Your task to perform on an android device: toggle notification dots Image 0: 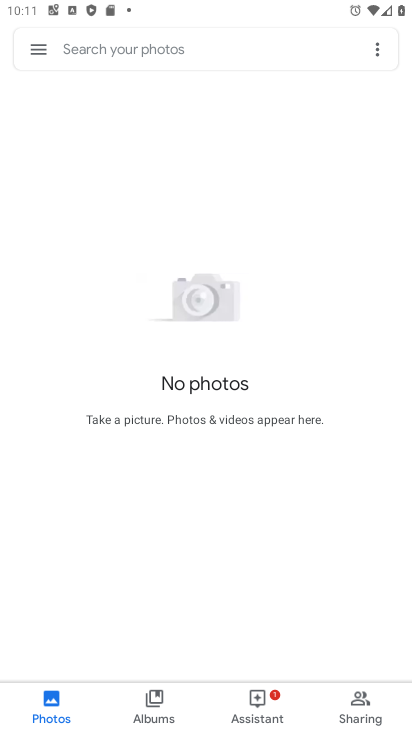
Step 0: press home button
Your task to perform on an android device: toggle notification dots Image 1: 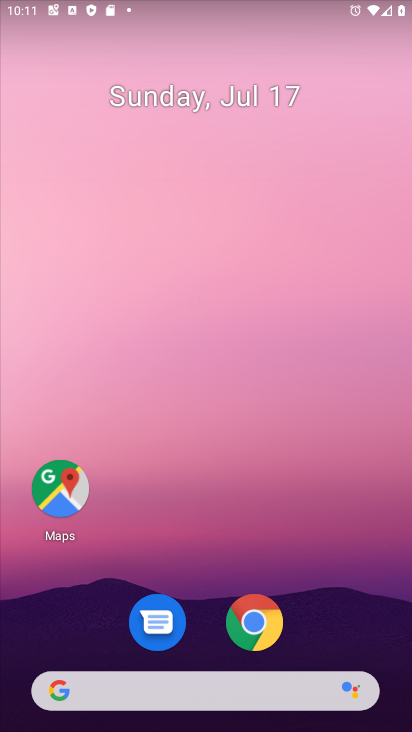
Step 1: drag from (265, 582) to (298, 25)
Your task to perform on an android device: toggle notification dots Image 2: 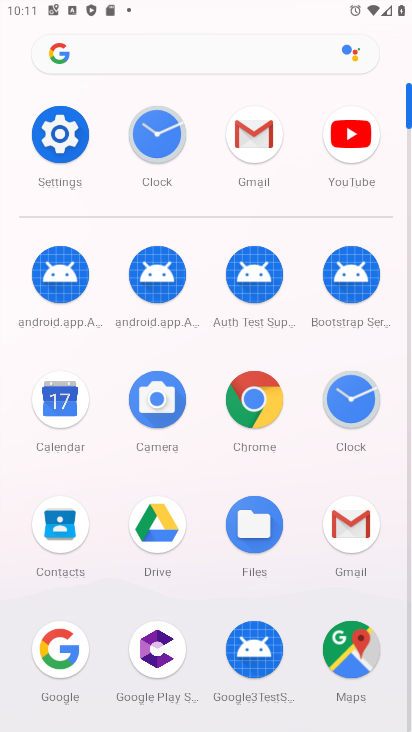
Step 2: click (48, 138)
Your task to perform on an android device: toggle notification dots Image 3: 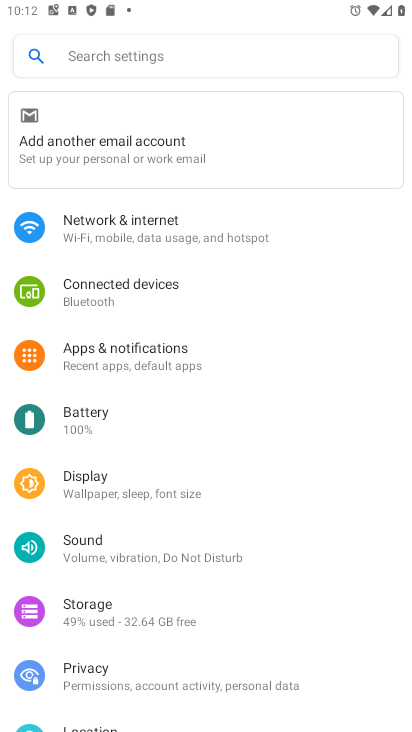
Step 3: click (170, 358)
Your task to perform on an android device: toggle notification dots Image 4: 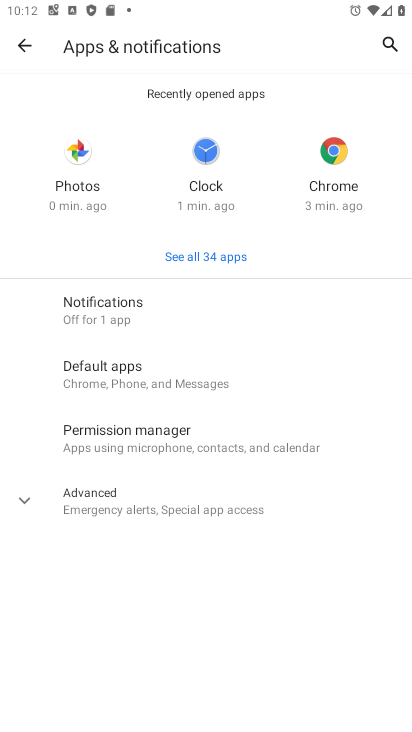
Step 4: click (123, 311)
Your task to perform on an android device: toggle notification dots Image 5: 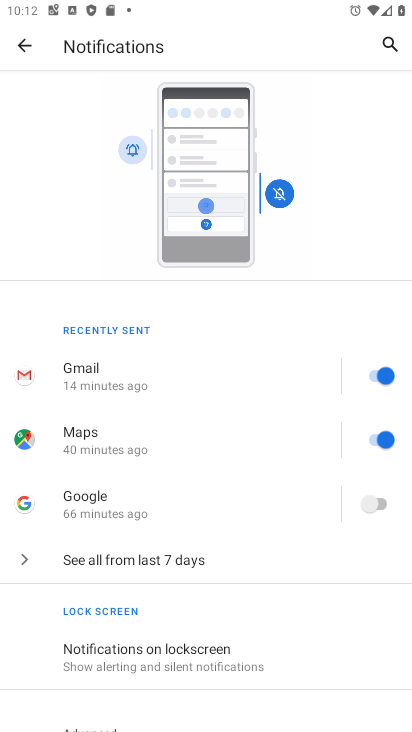
Step 5: drag from (275, 638) to (274, 188)
Your task to perform on an android device: toggle notification dots Image 6: 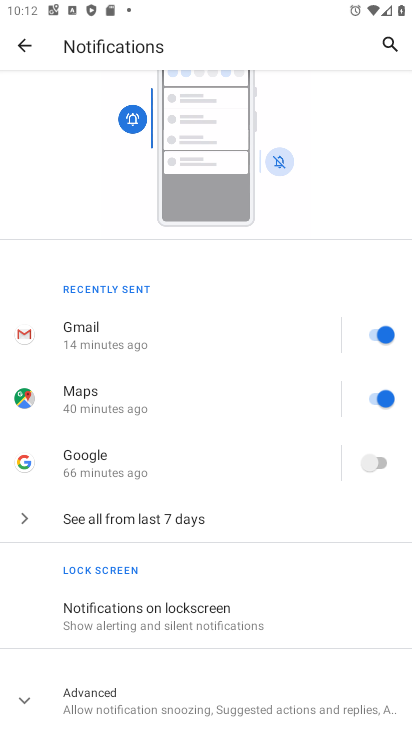
Step 6: click (233, 696)
Your task to perform on an android device: toggle notification dots Image 7: 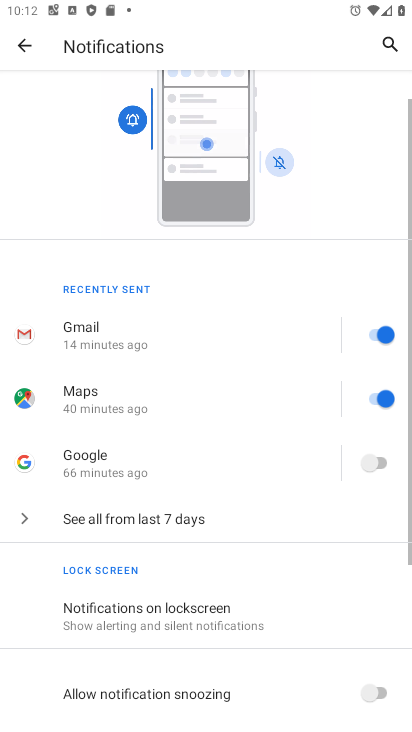
Step 7: drag from (301, 564) to (198, 7)
Your task to perform on an android device: toggle notification dots Image 8: 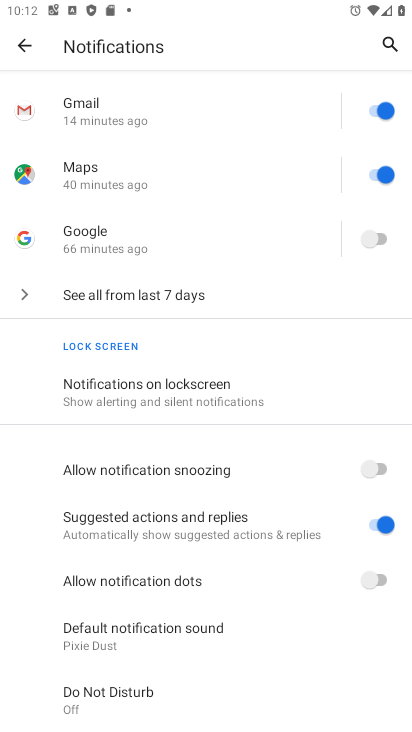
Step 8: click (372, 583)
Your task to perform on an android device: toggle notification dots Image 9: 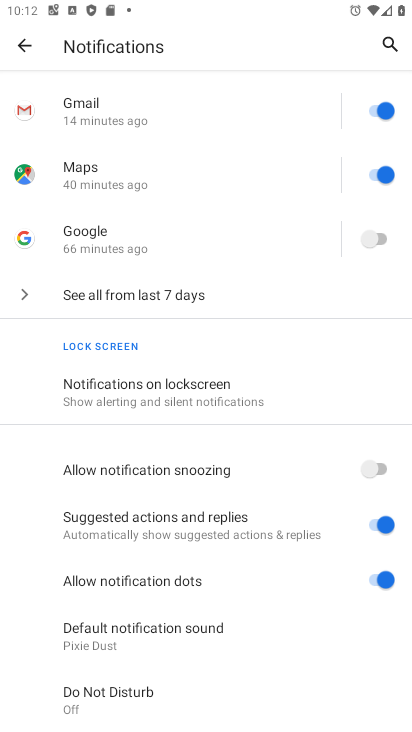
Step 9: task complete